Your task to perform on an android device: check google app version Image 0: 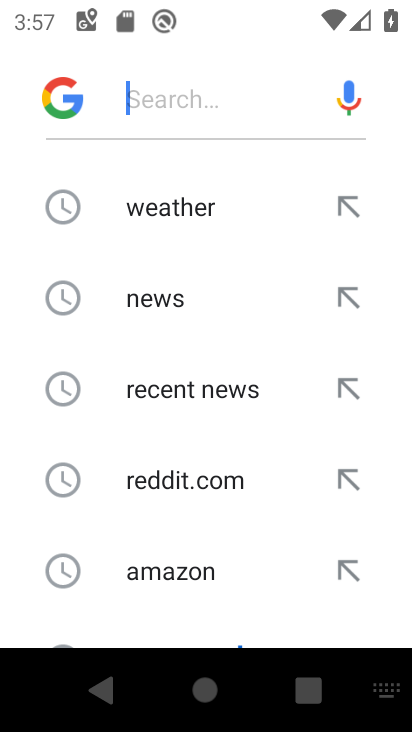
Step 0: press home button
Your task to perform on an android device: check google app version Image 1: 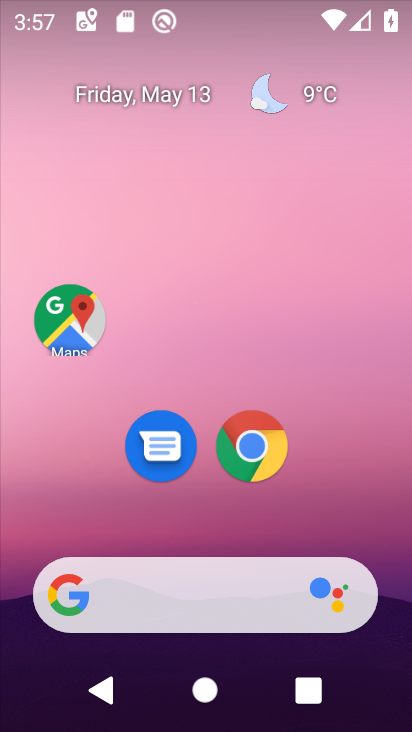
Step 1: drag from (188, 543) to (183, 0)
Your task to perform on an android device: check google app version Image 2: 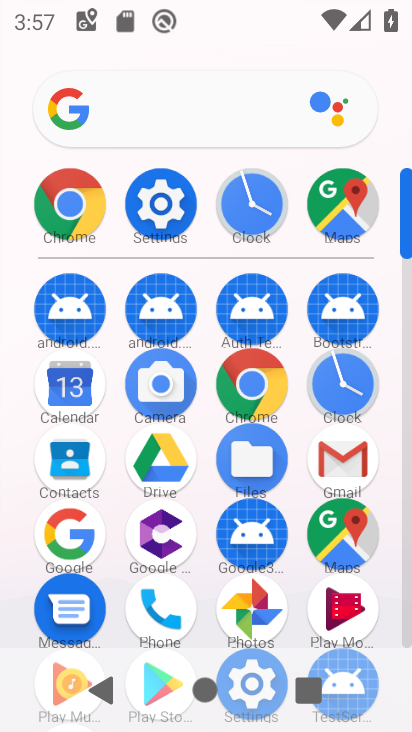
Step 2: click (93, 528)
Your task to perform on an android device: check google app version Image 3: 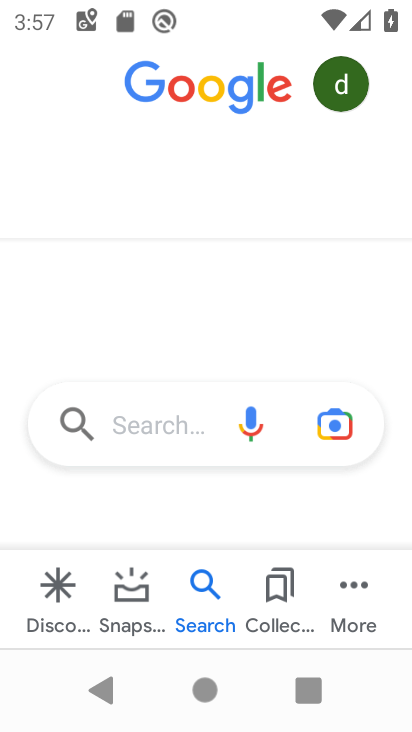
Step 3: click (346, 588)
Your task to perform on an android device: check google app version Image 4: 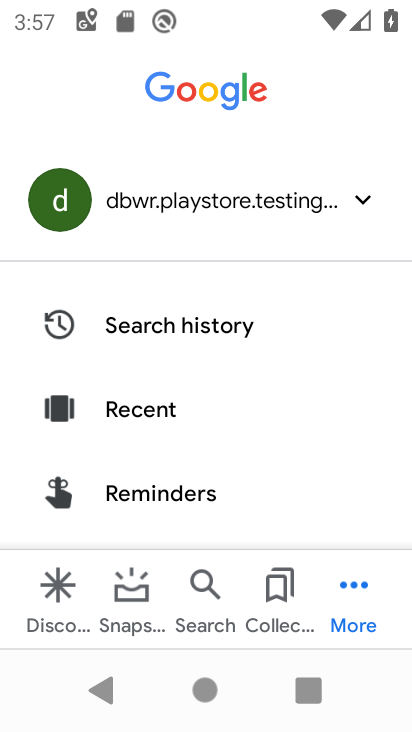
Step 4: drag from (204, 522) to (241, 158)
Your task to perform on an android device: check google app version Image 5: 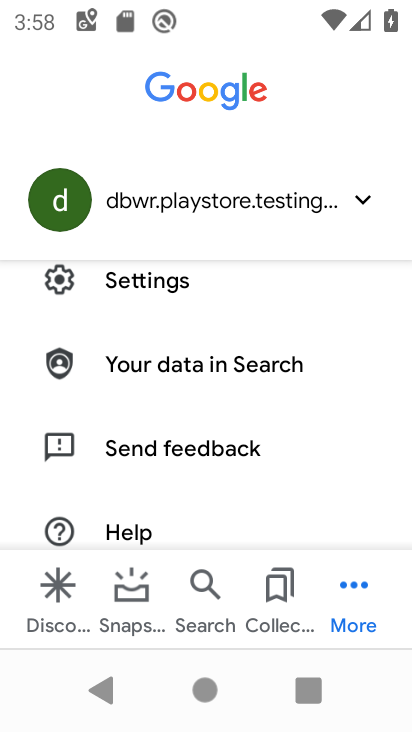
Step 5: click (181, 277)
Your task to perform on an android device: check google app version Image 6: 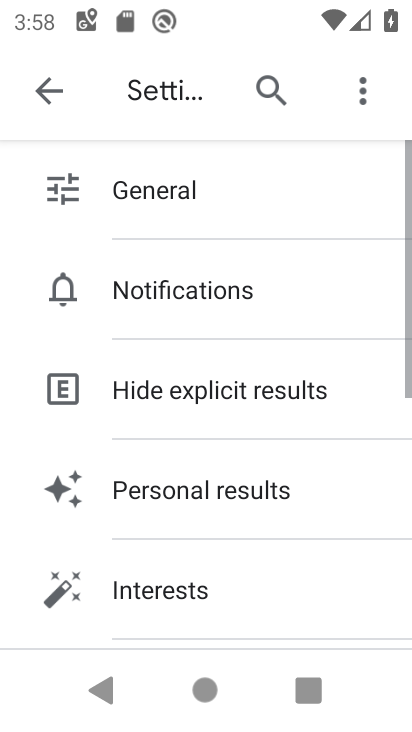
Step 6: drag from (263, 569) to (242, 147)
Your task to perform on an android device: check google app version Image 7: 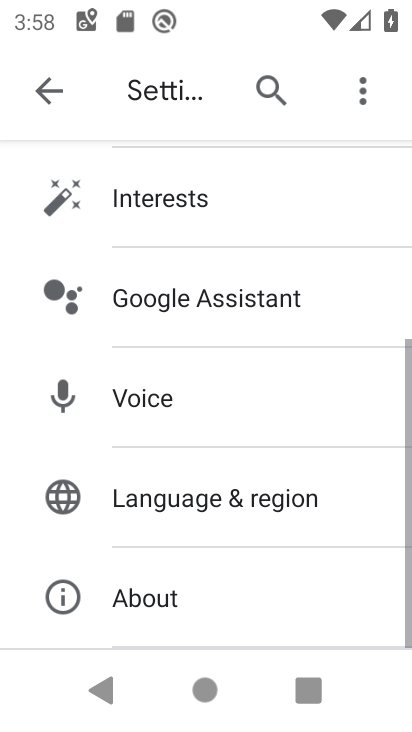
Step 7: click (264, 586)
Your task to perform on an android device: check google app version Image 8: 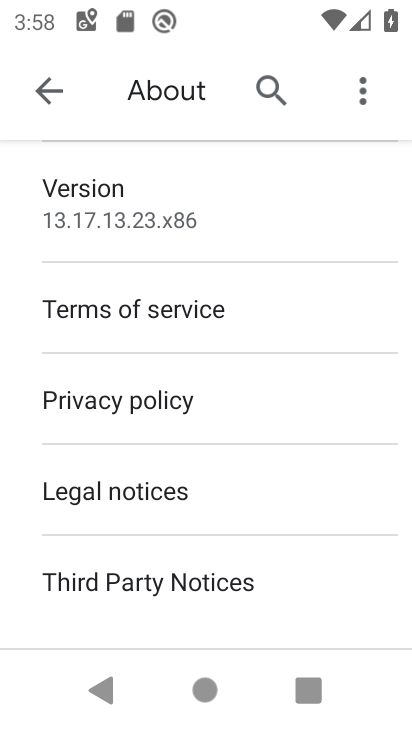
Step 8: click (166, 220)
Your task to perform on an android device: check google app version Image 9: 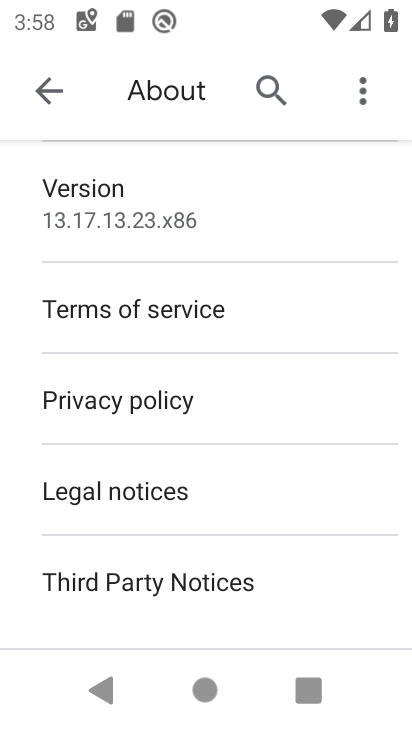
Step 9: task complete